Your task to perform on an android device: Open settings Image 0: 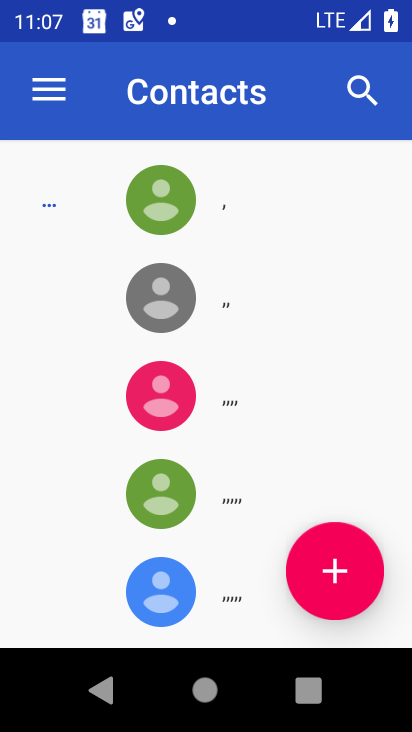
Step 0: press home button
Your task to perform on an android device: Open settings Image 1: 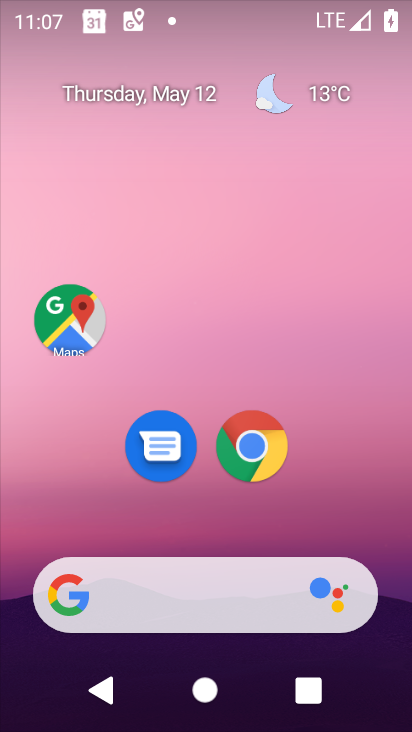
Step 1: drag from (208, 601) to (286, 34)
Your task to perform on an android device: Open settings Image 2: 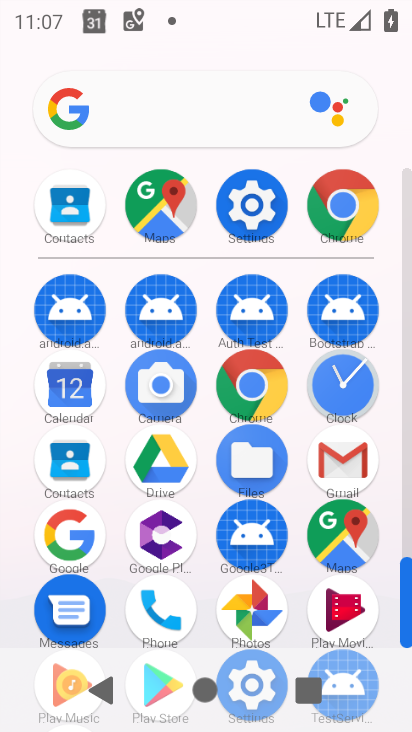
Step 2: click (266, 213)
Your task to perform on an android device: Open settings Image 3: 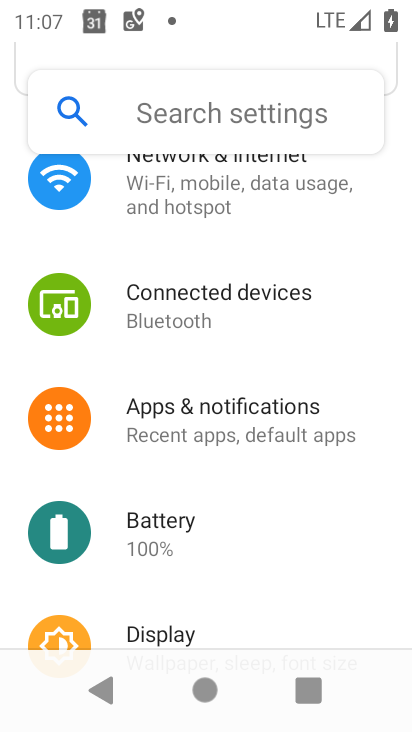
Step 3: task complete